Your task to perform on an android device: empty trash in google photos Image 0: 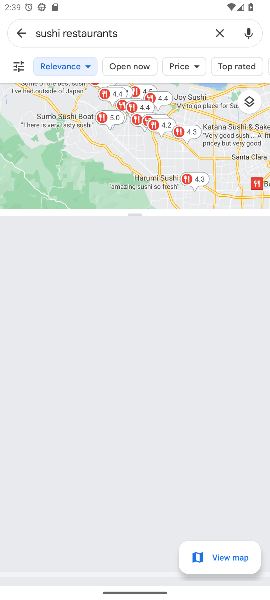
Step 0: press home button
Your task to perform on an android device: empty trash in google photos Image 1: 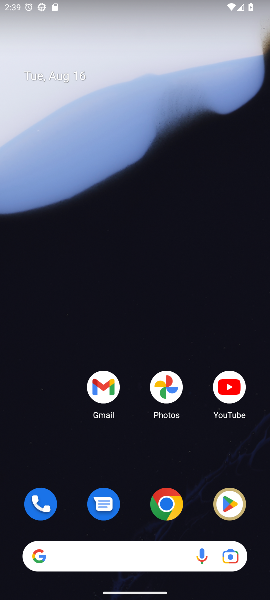
Step 1: click (163, 387)
Your task to perform on an android device: empty trash in google photos Image 2: 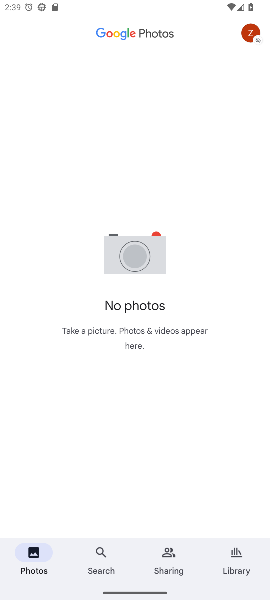
Step 2: click (257, 34)
Your task to perform on an android device: empty trash in google photos Image 3: 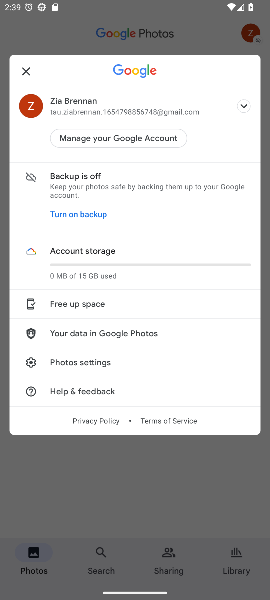
Step 3: click (191, 499)
Your task to perform on an android device: empty trash in google photos Image 4: 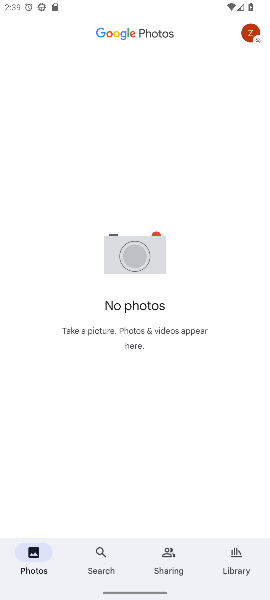
Step 4: click (238, 558)
Your task to perform on an android device: empty trash in google photos Image 5: 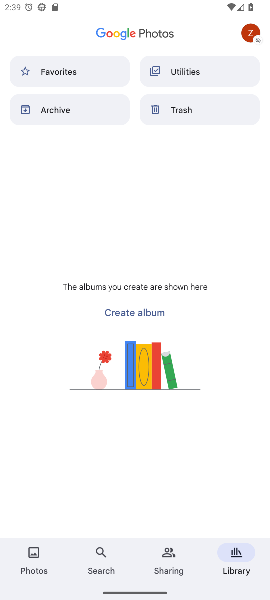
Step 5: click (159, 108)
Your task to perform on an android device: empty trash in google photos Image 6: 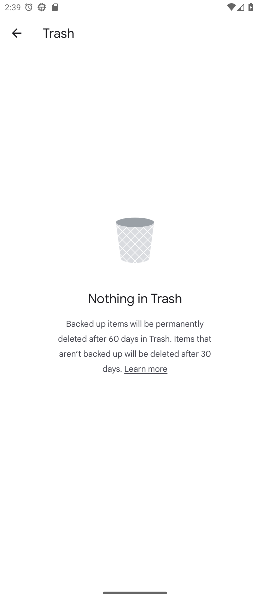
Step 6: task complete